Your task to perform on an android device: Do I have any events tomorrow? Image 0: 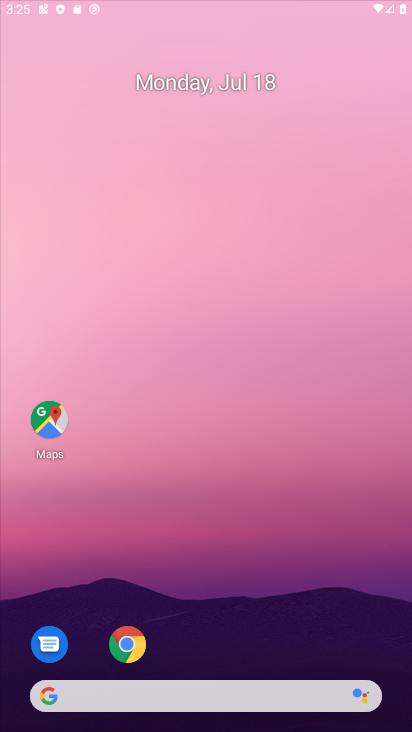
Step 0: drag from (378, 636) to (370, 146)
Your task to perform on an android device: Do I have any events tomorrow? Image 1: 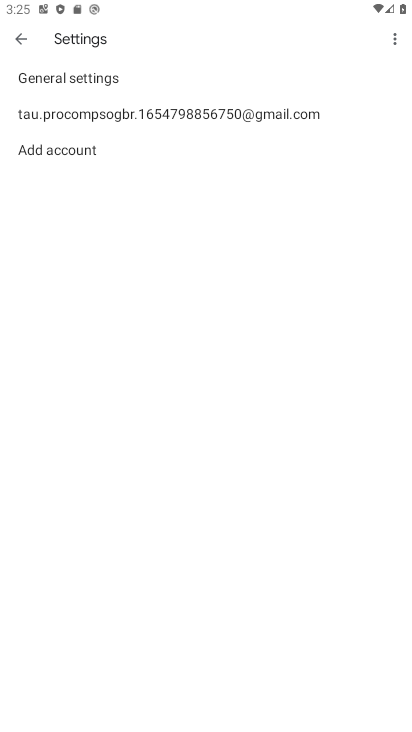
Step 1: press home button
Your task to perform on an android device: Do I have any events tomorrow? Image 2: 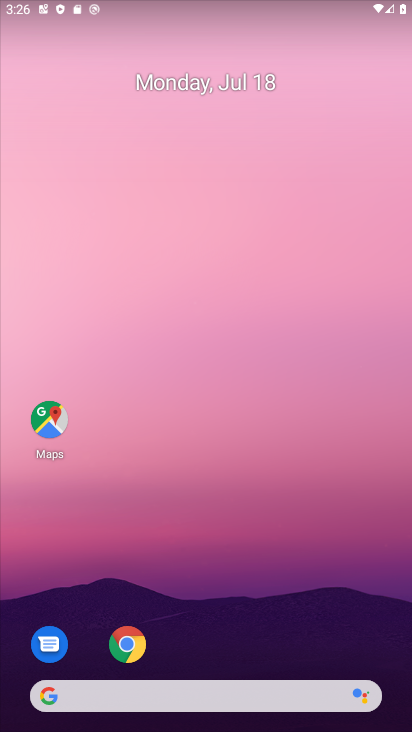
Step 2: drag from (279, 663) to (281, 221)
Your task to perform on an android device: Do I have any events tomorrow? Image 3: 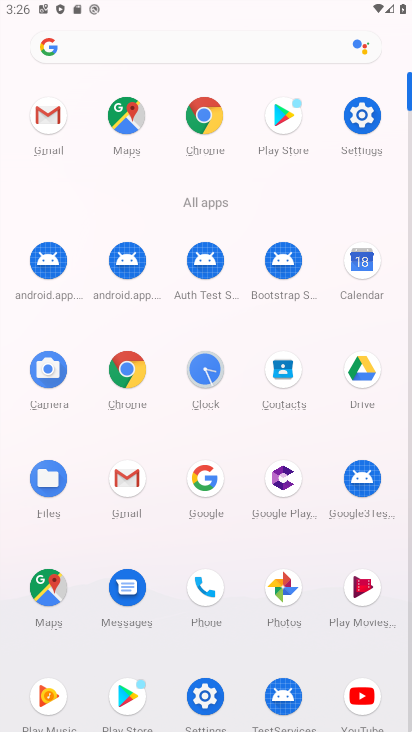
Step 3: click (359, 266)
Your task to perform on an android device: Do I have any events tomorrow? Image 4: 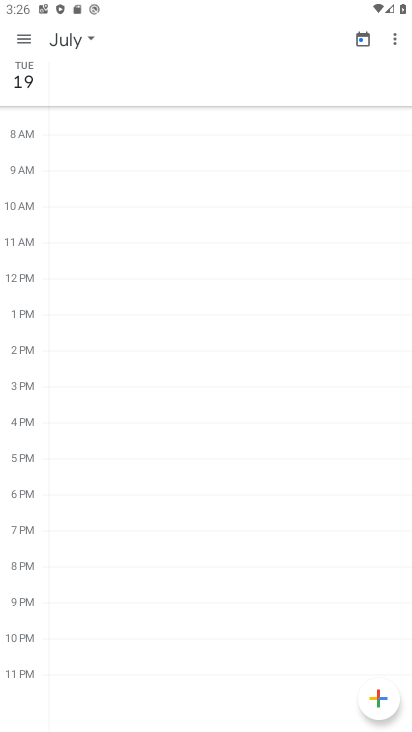
Step 4: click (19, 41)
Your task to perform on an android device: Do I have any events tomorrow? Image 5: 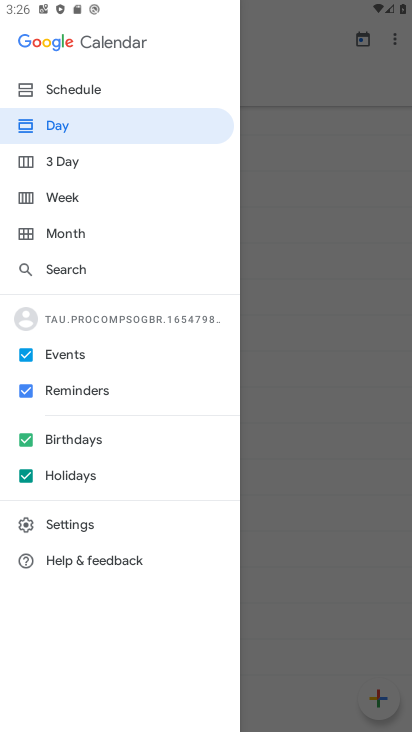
Step 5: click (62, 118)
Your task to perform on an android device: Do I have any events tomorrow? Image 6: 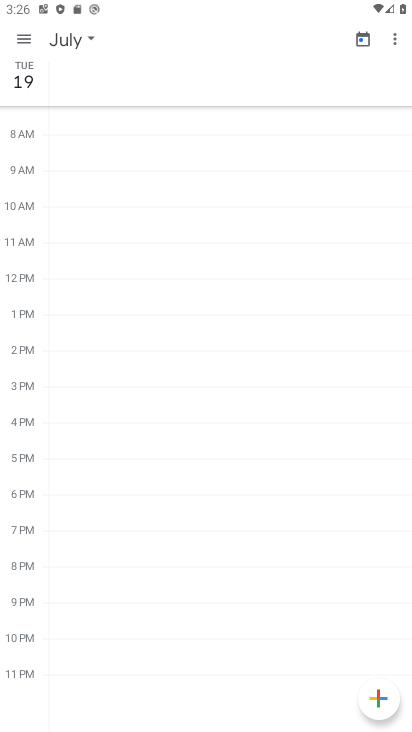
Step 6: click (90, 39)
Your task to perform on an android device: Do I have any events tomorrow? Image 7: 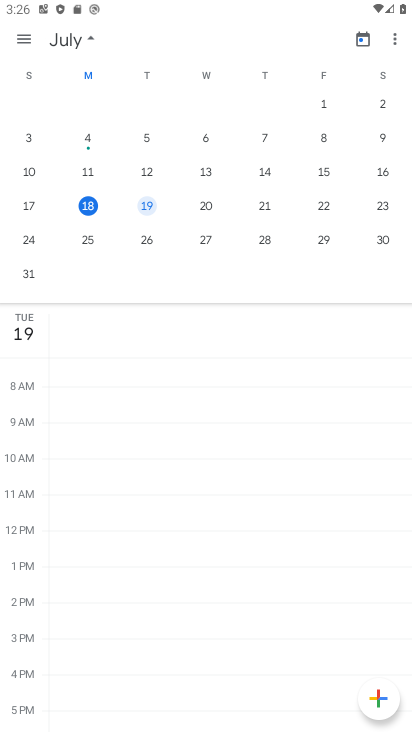
Step 7: click (145, 205)
Your task to perform on an android device: Do I have any events tomorrow? Image 8: 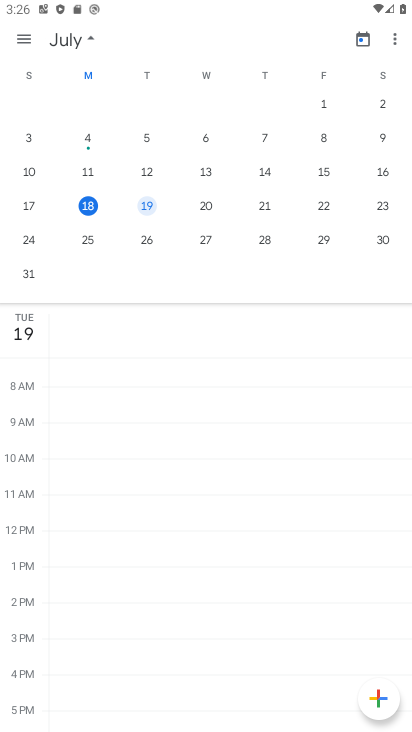
Step 8: task complete